Your task to perform on an android device: uninstall "Cash App" Image 0: 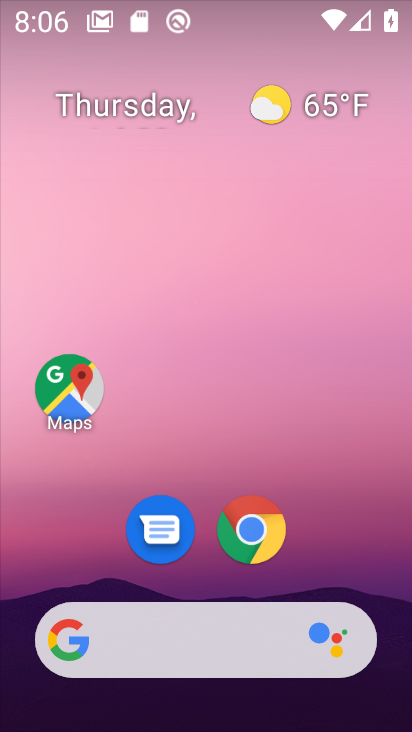
Step 0: drag from (216, 685) to (233, 145)
Your task to perform on an android device: uninstall "Cash App" Image 1: 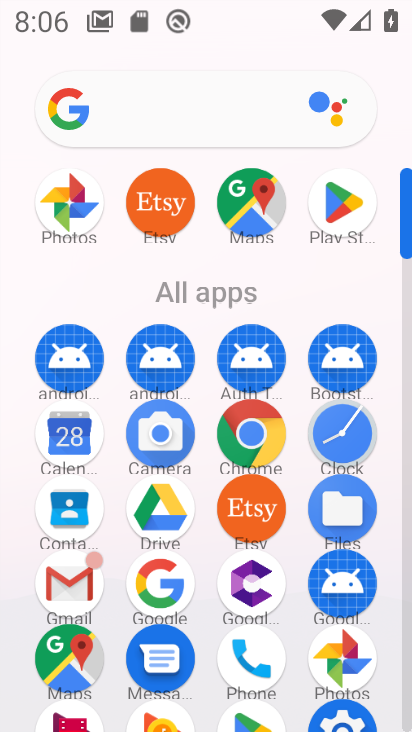
Step 1: click (342, 202)
Your task to perform on an android device: uninstall "Cash App" Image 2: 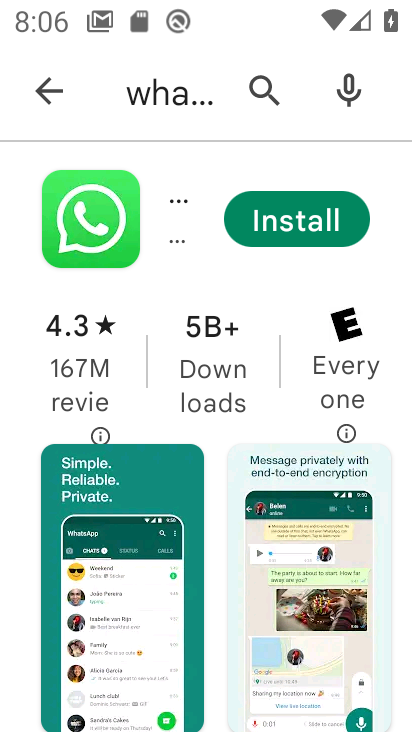
Step 2: click (263, 79)
Your task to perform on an android device: uninstall "Cash App" Image 3: 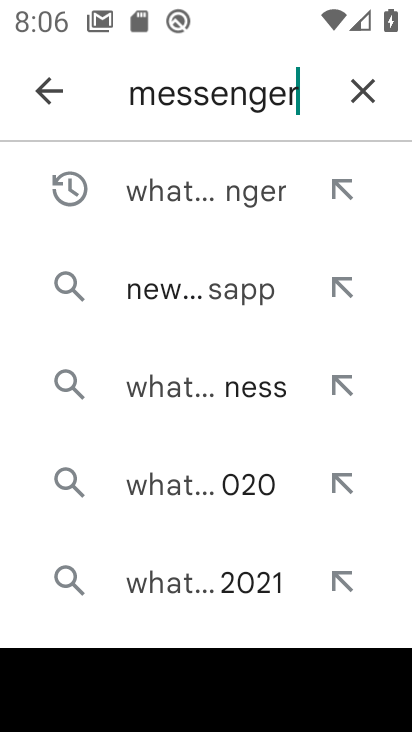
Step 3: click (366, 83)
Your task to perform on an android device: uninstall "Cash App" Image 4: 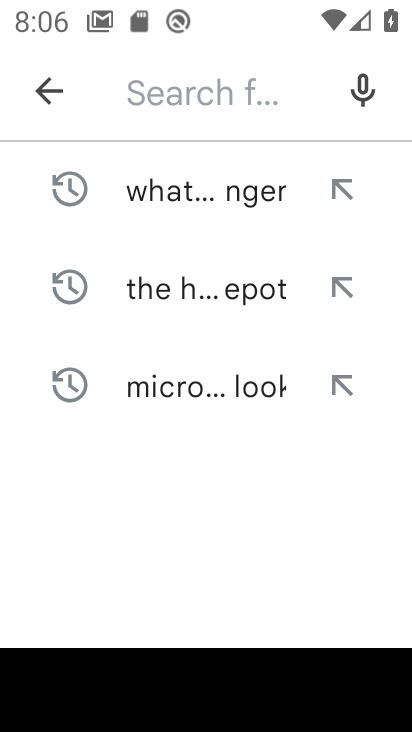
Step 4: type "Cash App"
Your task to perform on an android device: uninstall "Cash App" Image 5: 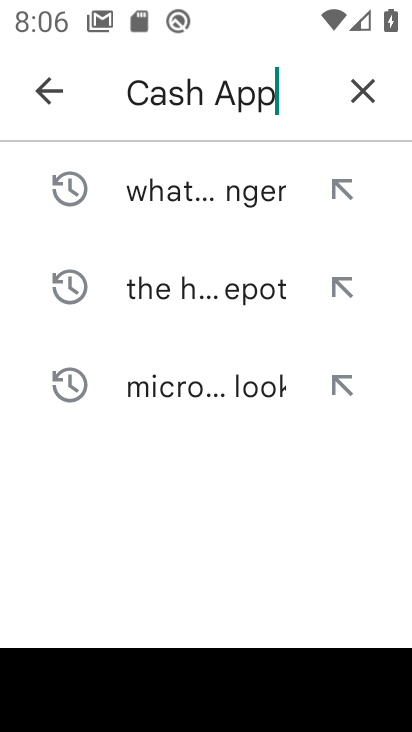
Step 5: type ""
Your task to perform on an android device: uninstall "Cash App" Image 6: 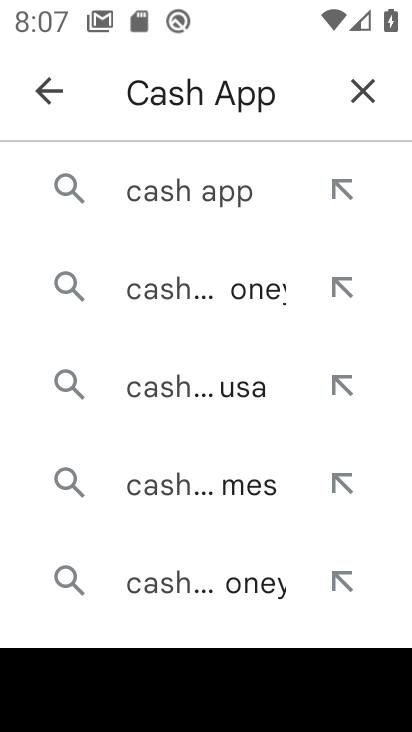
Step 6: click (207, 194)
Your task to perform on an android device: uninstall "Cash App" Image 7: 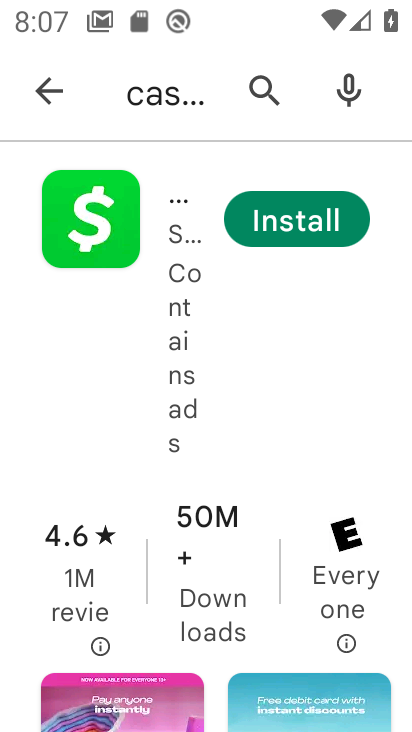
Step 7: task complete